Your task to perform on an android device: Search for hotels in Buenos aires Image 0: 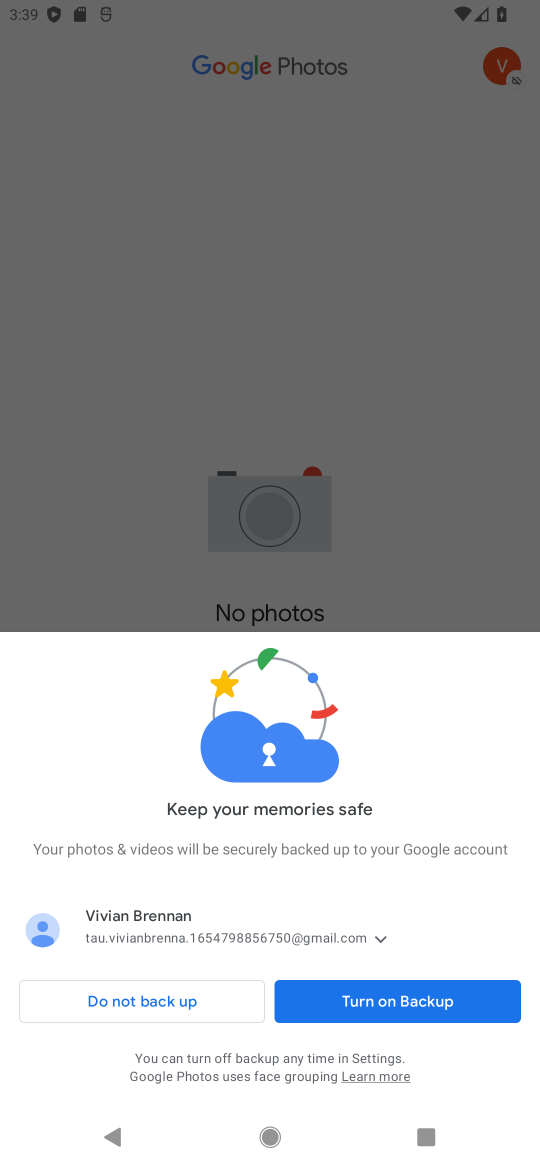
Step 0: press home button
Your task to perform on an android device: Search for hotels in Buenos aires Image 1: 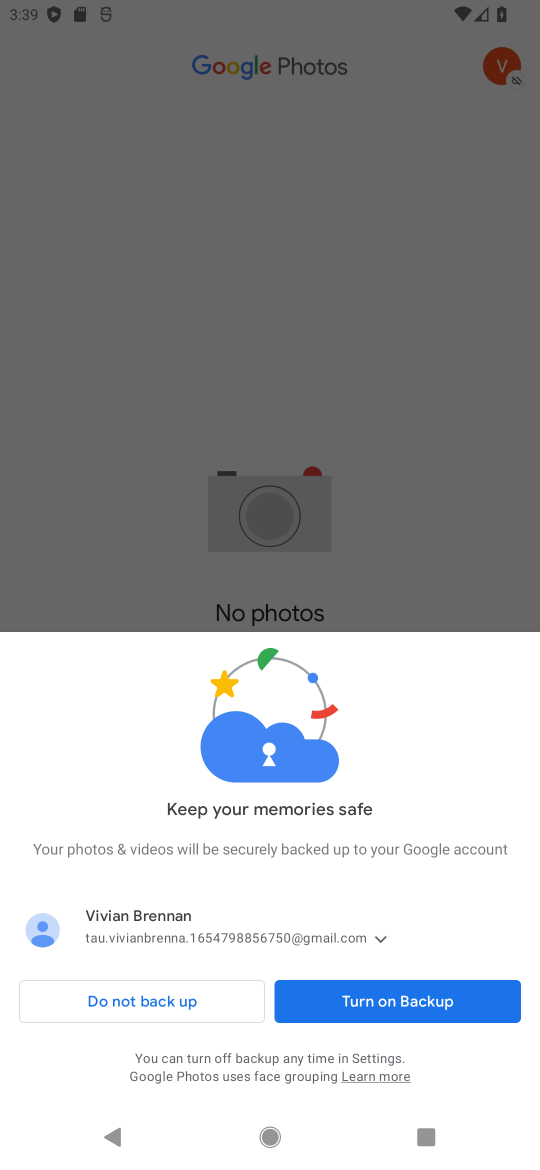
Step 1: press home button
Your task to perform on an android device: Search for hotels in Buenos aires Image 2: 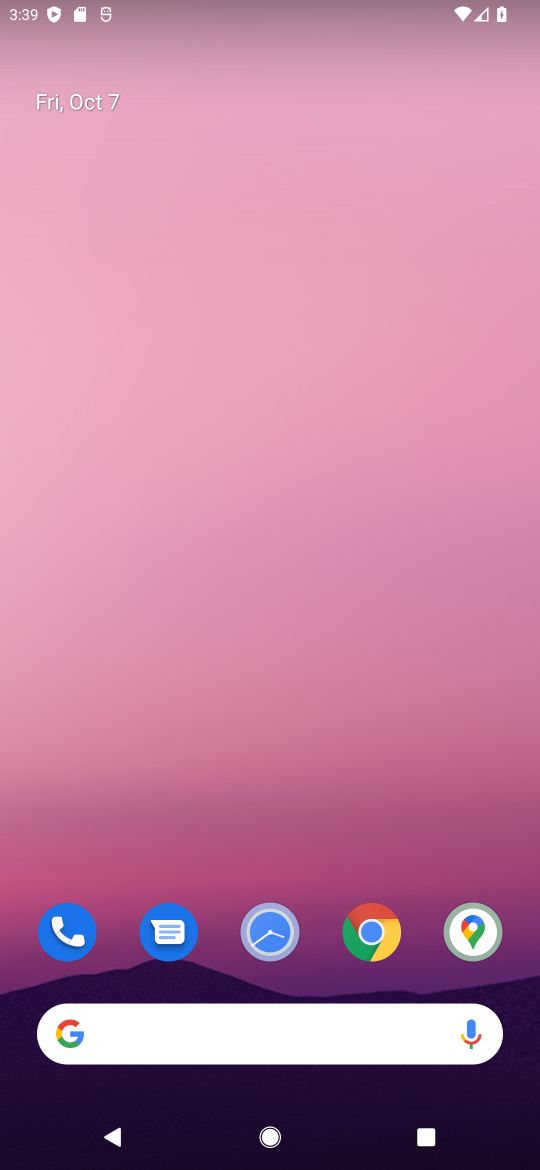
Step 2: drag from (148, 1007) to (144, 594)
Your task to perform on an android device: Search for hotels in Buenos aires Image 3: 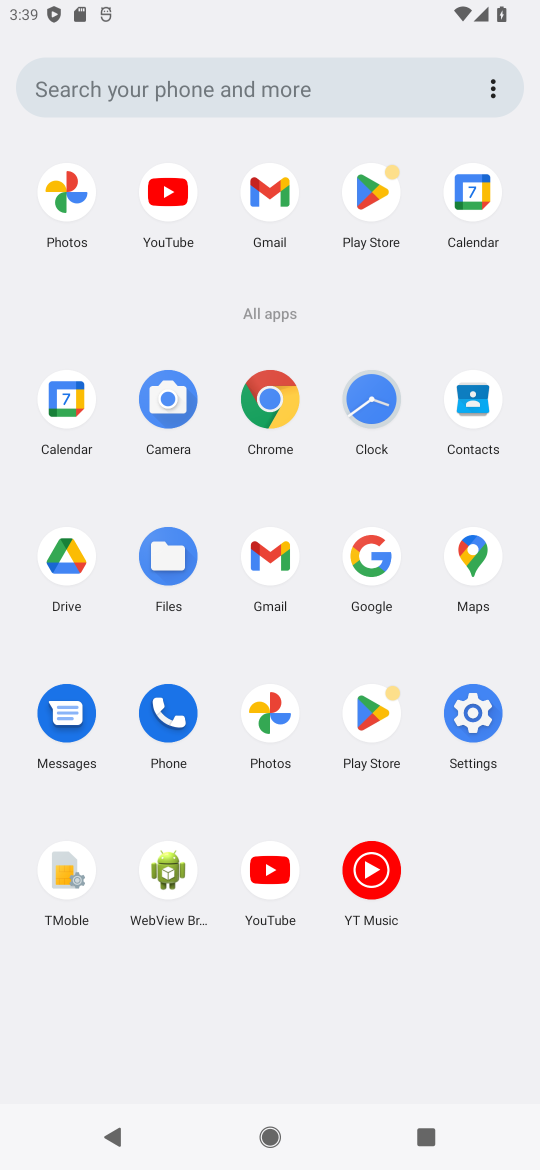
Step 3: click (367, 560)
Your task to perform on an android device: Search for hotels in Buenos aires Image 4: 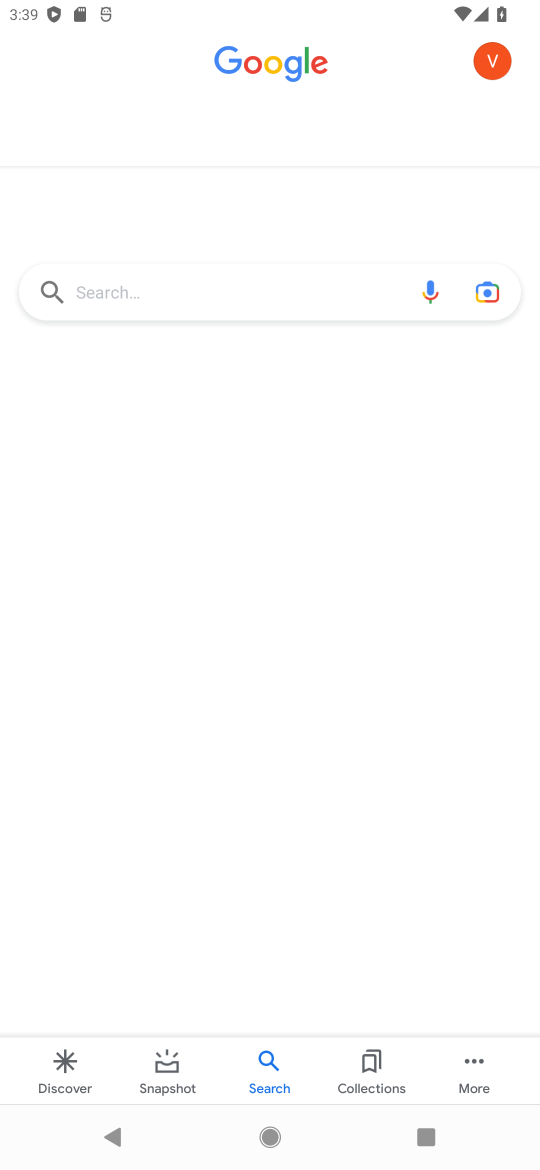
Step 4: click (262, 299)
Your task to perform on an android device: Search for hotels in Buenos aires Image 5: 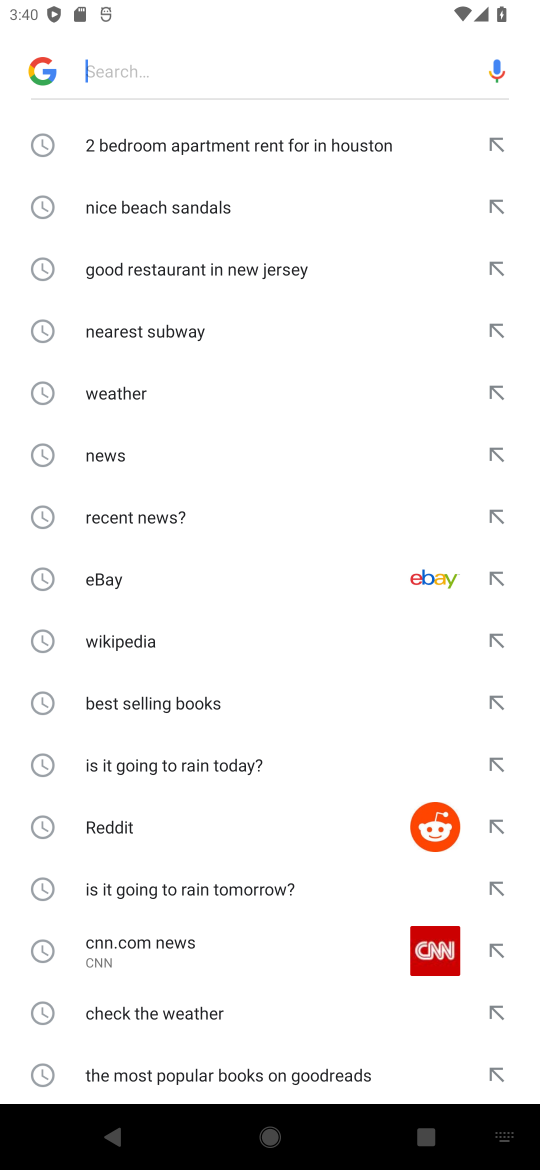
Step 5: type "hotels in Buenos aires"
Your task to perform on an android device: Search for hotels in Buenos aires Image 6: 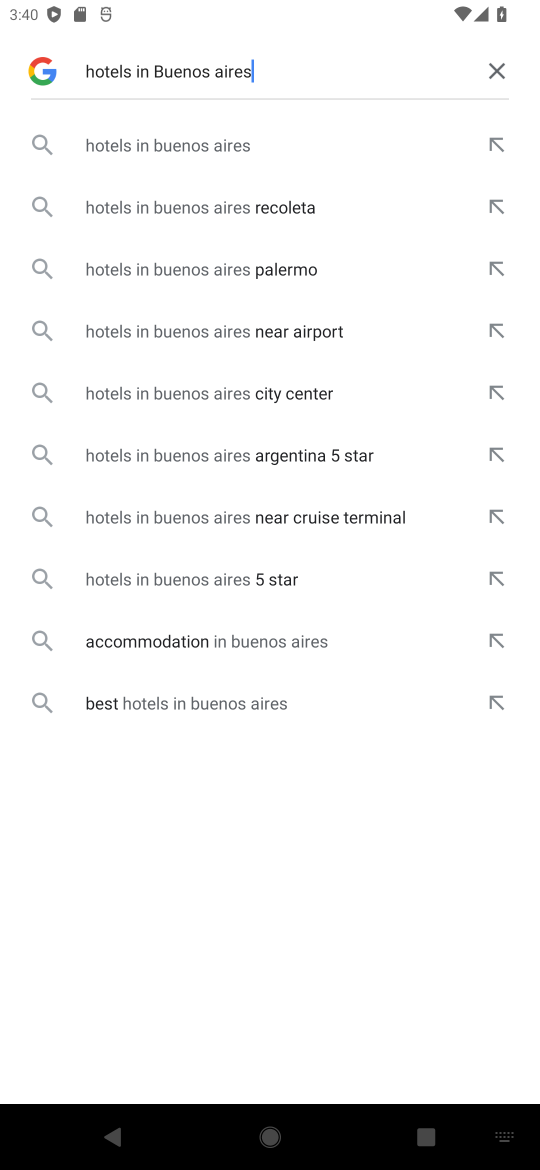
Step 6: click (339, 143)
Your task to perform on an android device: Search for hotels in Buenos aires Image 7: 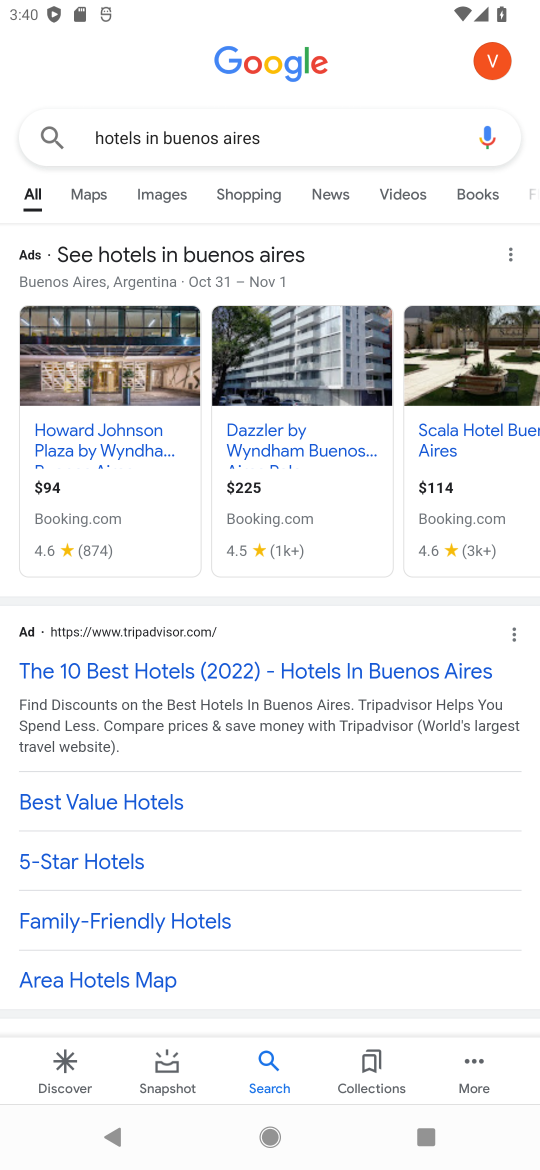
Step 7: task complete